Your task to perform on an android device: stop showing notifications on the lock screen Image 0: 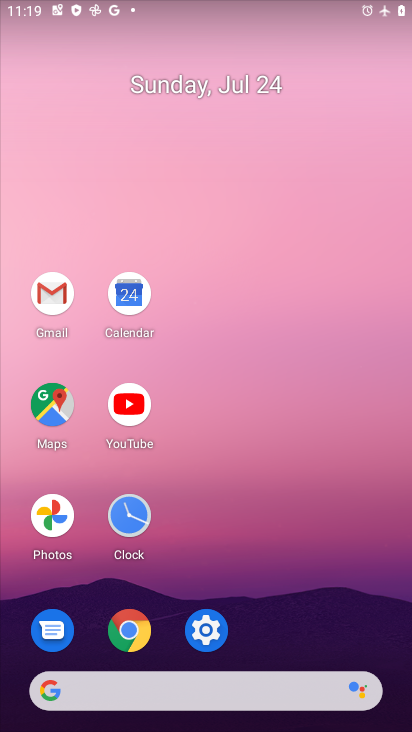
Step 0: click (204, 627)
Your task to perform on an android device: stop showing notifications on the lock screen Image 1: 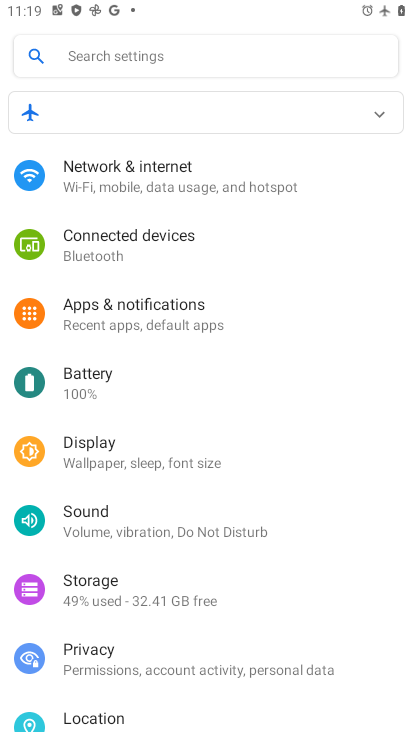
Step 1: click (111, 302)
Your task to perform on an android device: stop showing notifications on the lock screen Image 2: 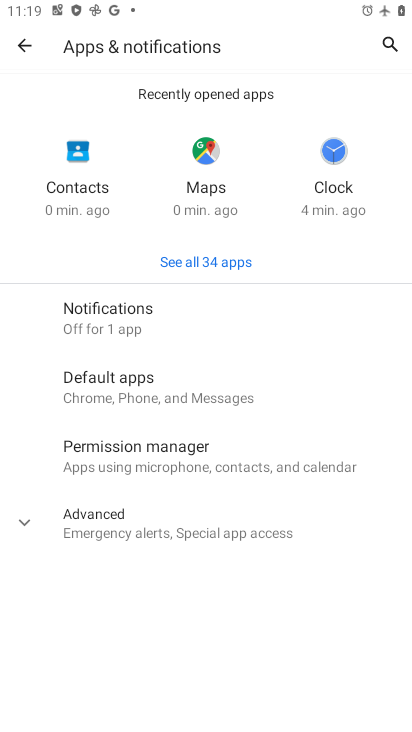
Step 2: click (109, 307)
Your task to perform on an android device: stop showing notifications on the lock screen Image 3: 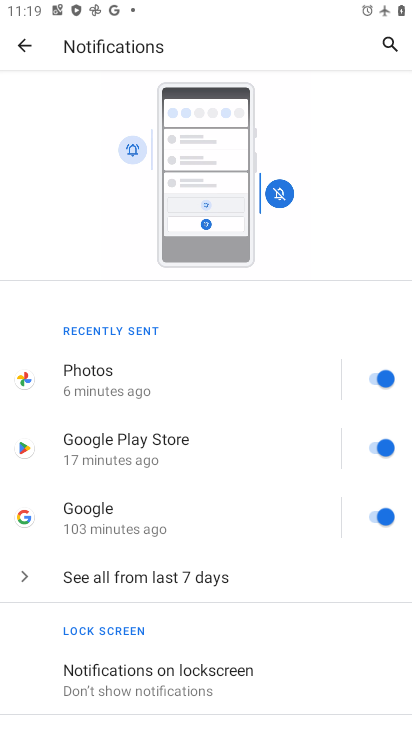
Step 3: click (192, 667)
Your task to perform on an android device: stop showing notifications on the lock screen Image 4: 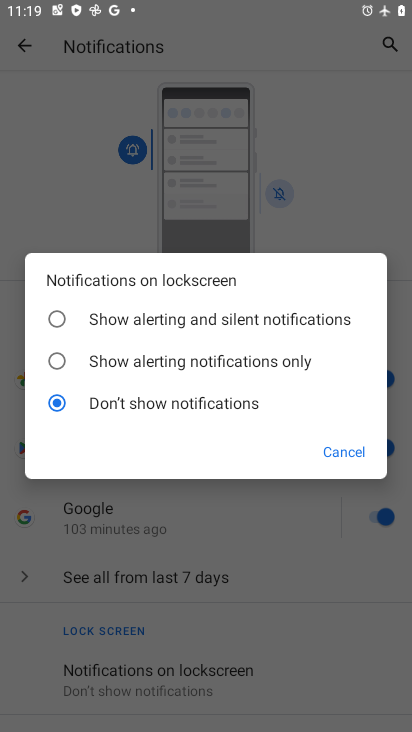
Step 4: task complete